Your task to perform on an android device: Open display settings Image 0: 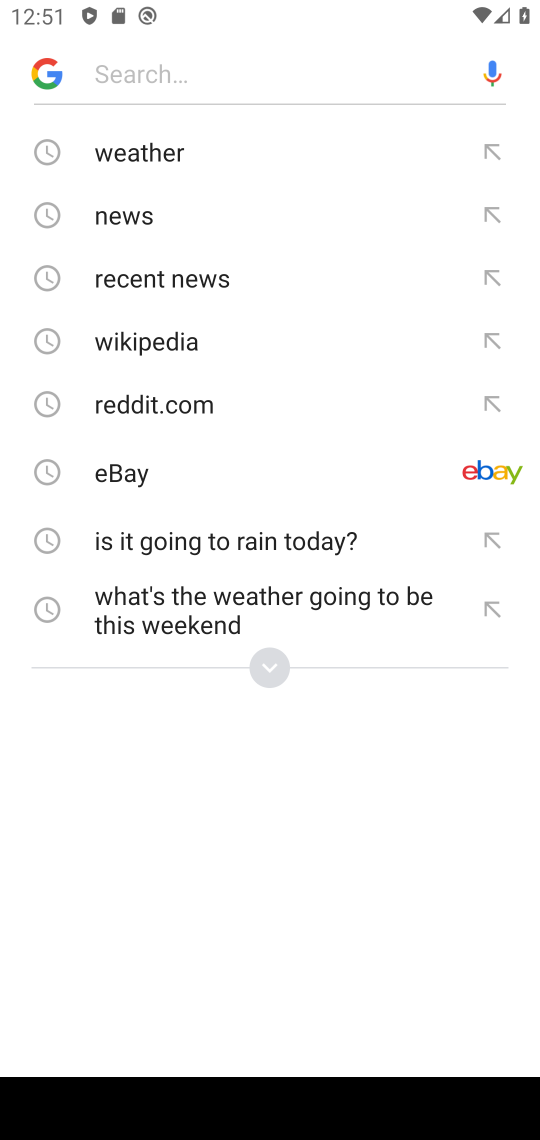
Step 0: press home button
Your task to perform on an android device: Open display settings Image 1: 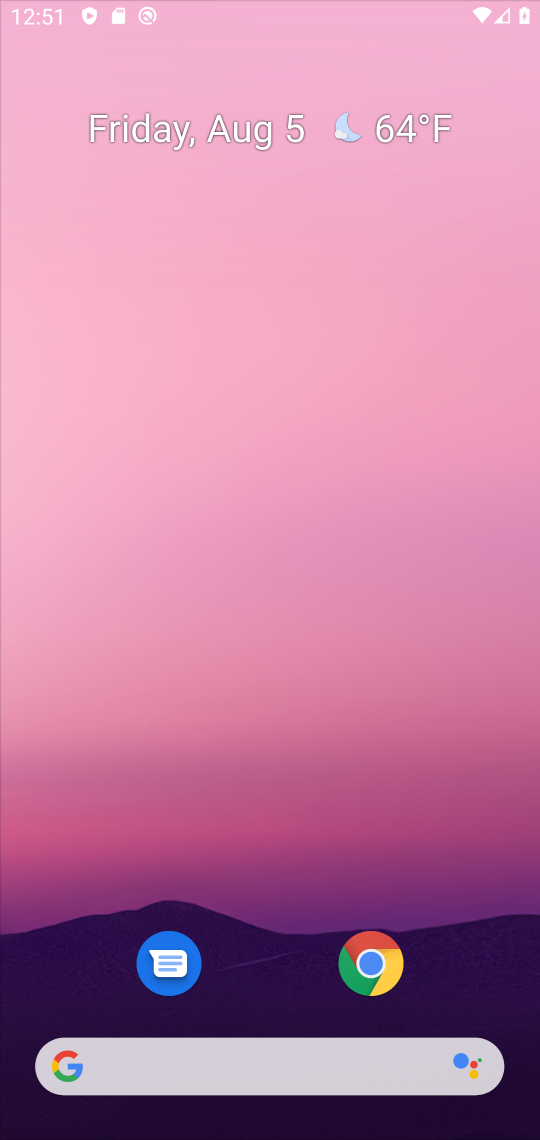
Step 1: drag from (422, 135) to (482, 3)
Your task to perform on an android device: Open display settings Image 2: 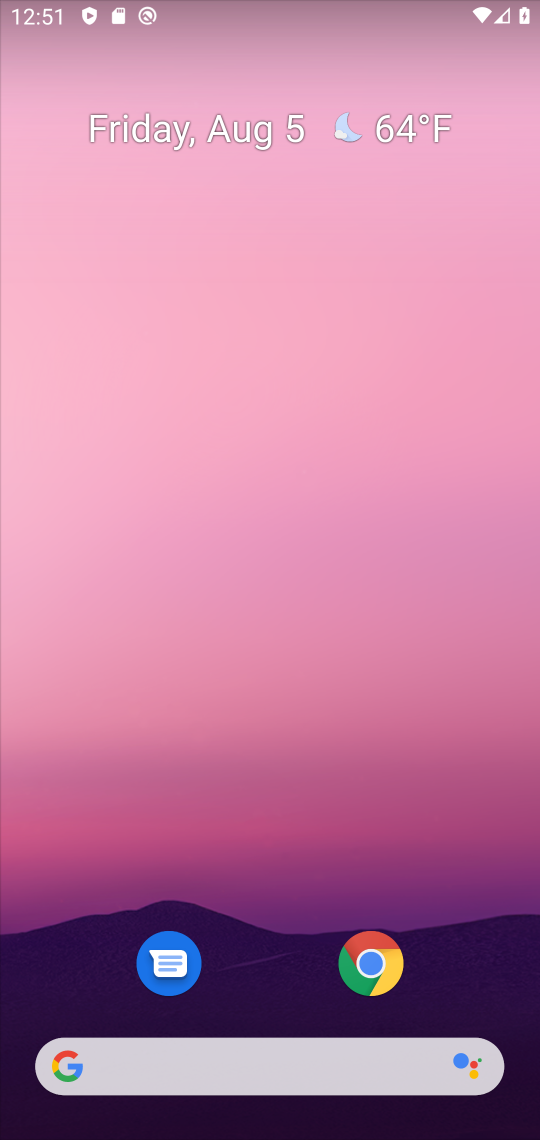
Step 2: drag from (352, 784) to (533, 108)
Your task to perform on an android device: Open display settings Image 3: 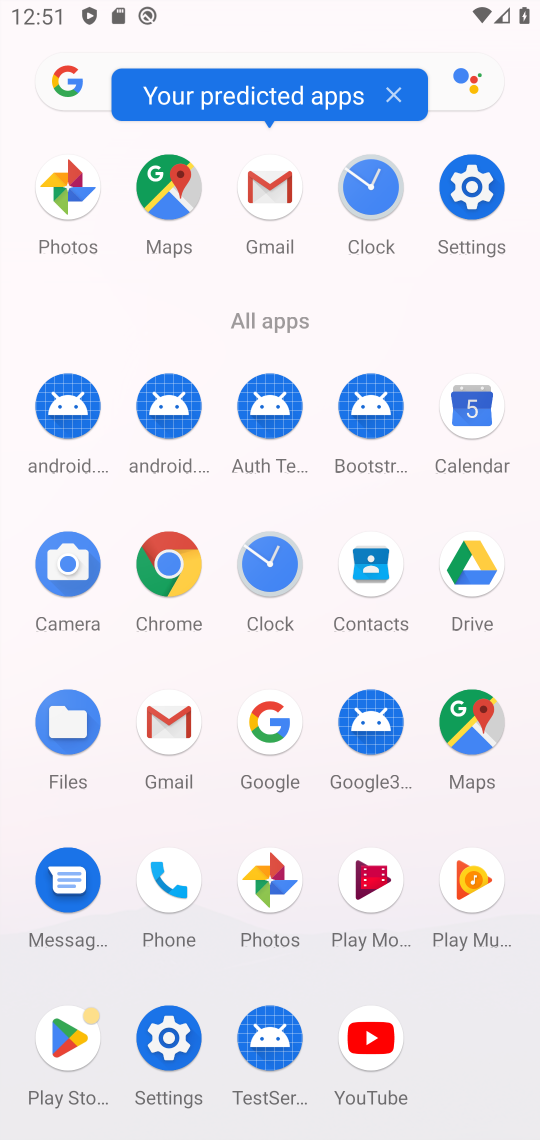
Step 3: click (480, 182)
Your task to perform on an android device: Open display settings Image 4: 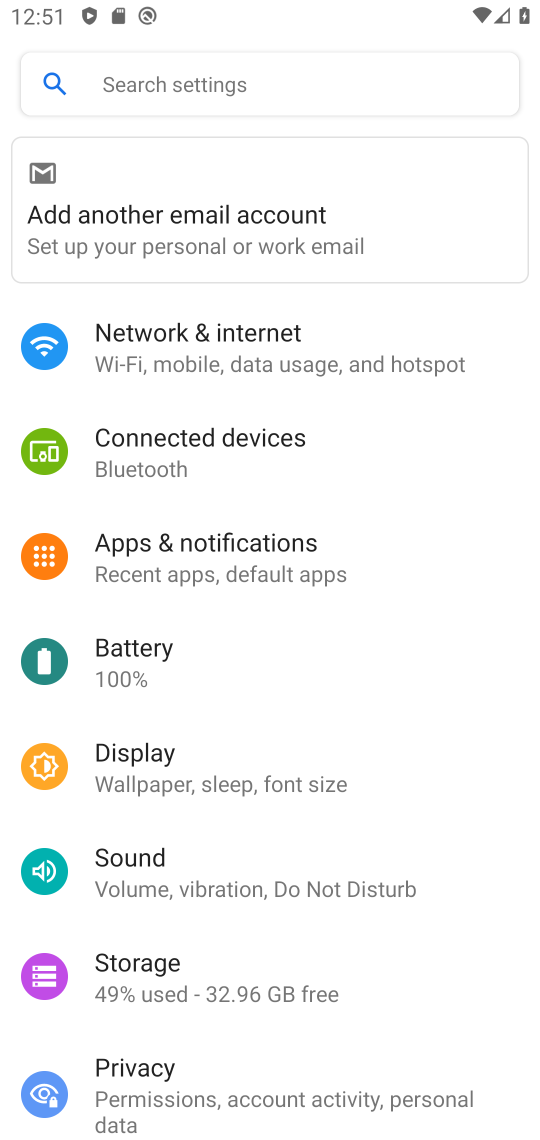
Step 4: click (153, 773)
Your task to perform on an android device: Open display settings Image 5: 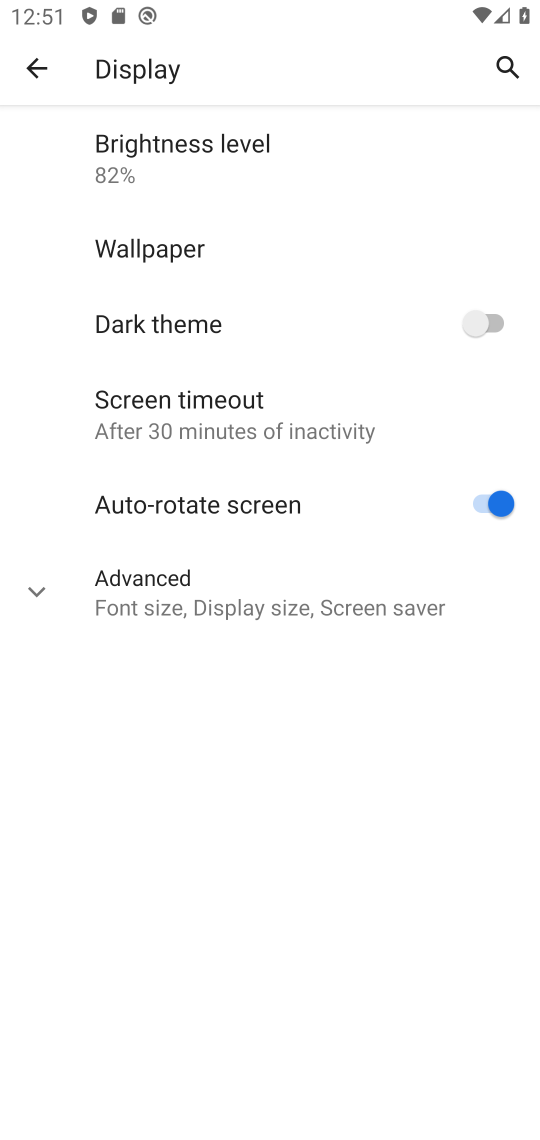
Step 5: task complete